Your task to perform on an android device: Go to settings Image 0: 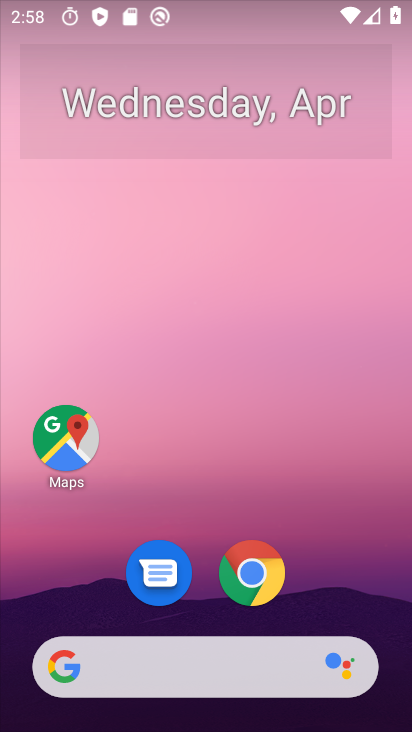
Step 0: drag from (196, 727) to (198, 94)
Your task to perform on an android device: Go to settings Image 1: 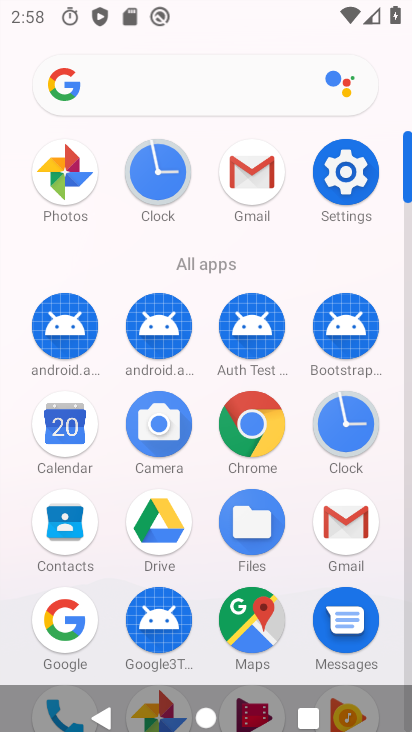
Step 1: click (349, 180)
Your task to perform on an android device: Go to settings Image 2: 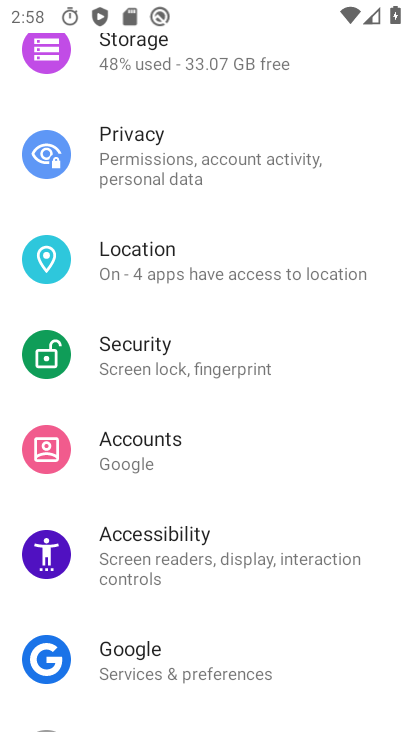
Step 2: task complete